Your task to perform on an android device: View the shopping cart on newegg.com. Add dell xps to the cart on newegg.com Image 0: 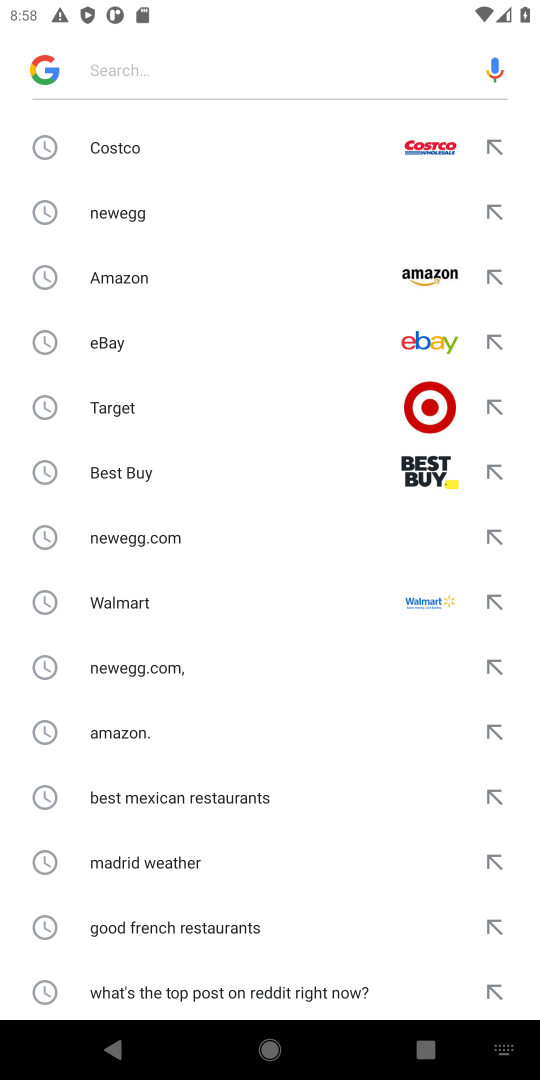
Step 0: click (148, 226)
Your task to perform on an android device: View the shopping cart on newegg.com. Add dell xps to the cart on newegg.com Image 1: 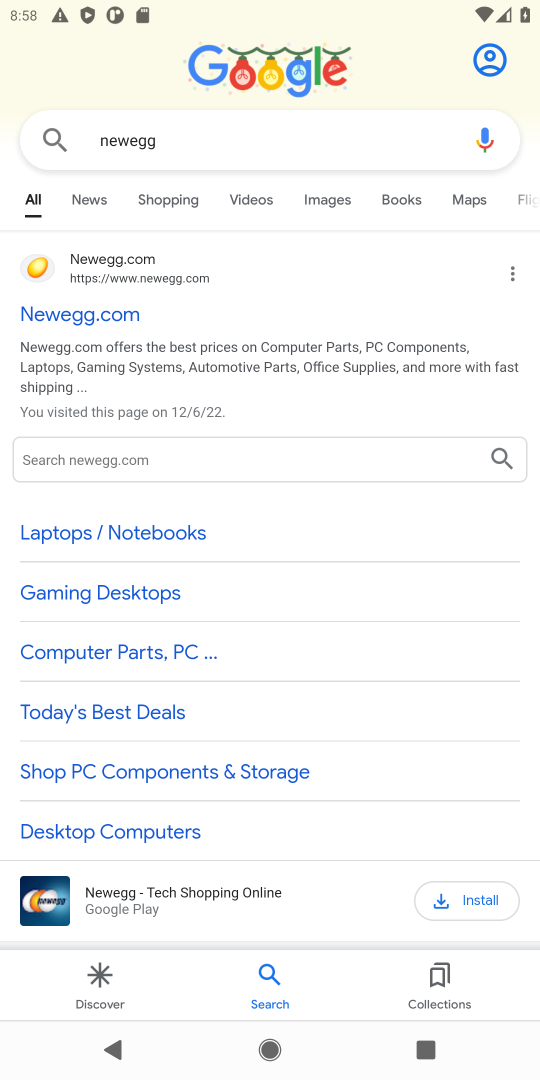
Step 1: click (89, 311)
Your task to perform on an android device: View the shopping cart on newegg.com. Add dell xps to the cart on newegg.com Image 2: 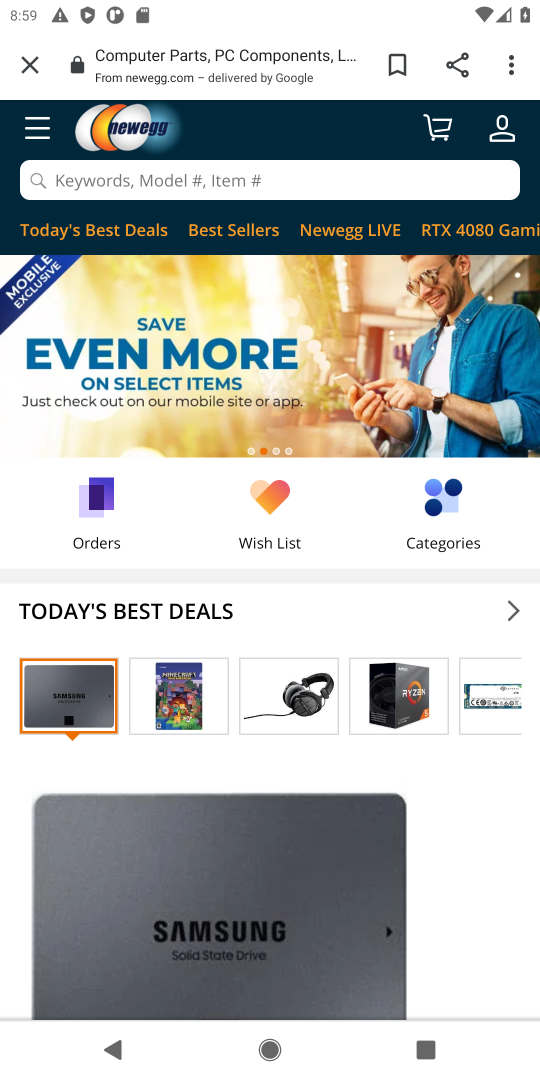
Step 2: click (301, 180)
Your task to perform on an android device: View the shopping cart on newegg.com. Add dell xps to the cart on newegg.com Image 3: 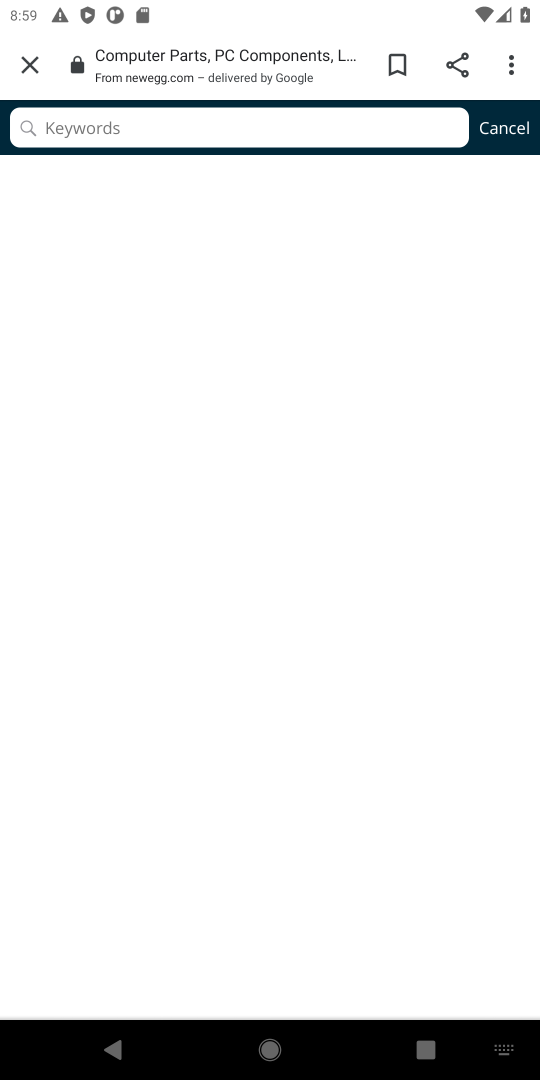
Step 3: type "dell xps"
Your task to perform on an android device: View the shopping cart on newegg.com. Add dell xps to the cart on newegg.com Image 4: 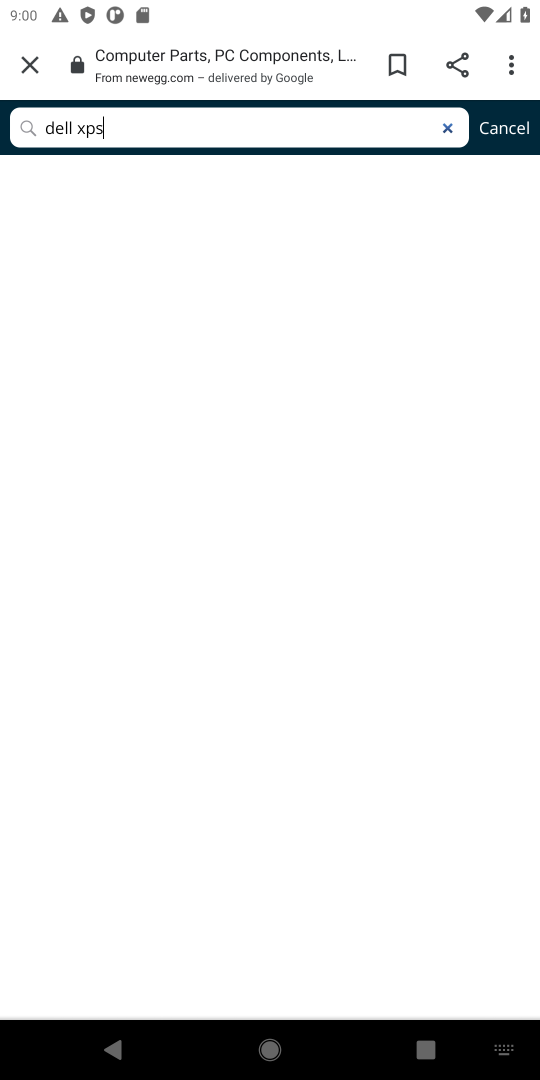
Step 4: task complete